Your task to perform on an android device: Open internet settings Image 0: 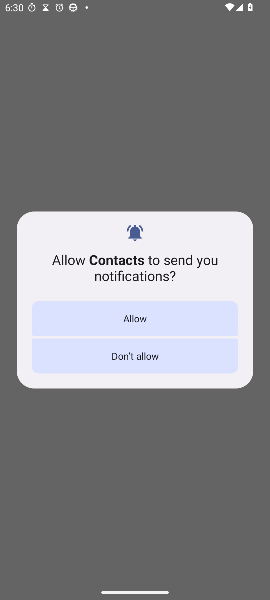
Step 0: press home button
Your task to perform on an android device: Open internet settings Image 1: 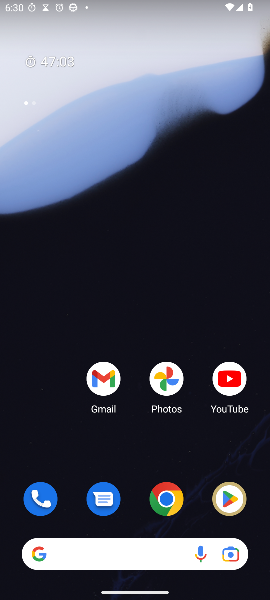
Step 1: drag from (148, 519) to (152, 0)
Your task to perform on an android device: Open internet settings Image 2: 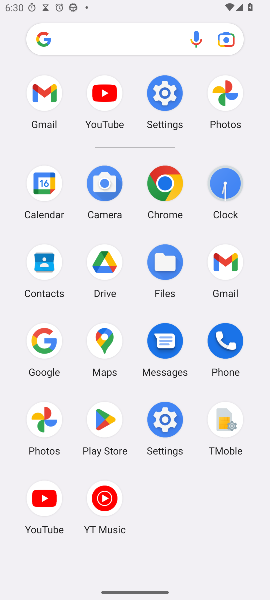
Step 2: click (159, 102)
Your task to perform on an android device: Open internet settings Image 3: 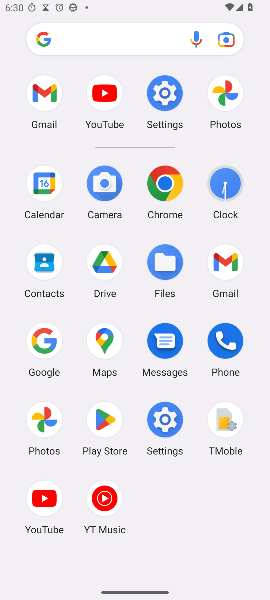
Step 3: click (155, 100)
Your task to perform on an android device: Open internet settings Image 4: 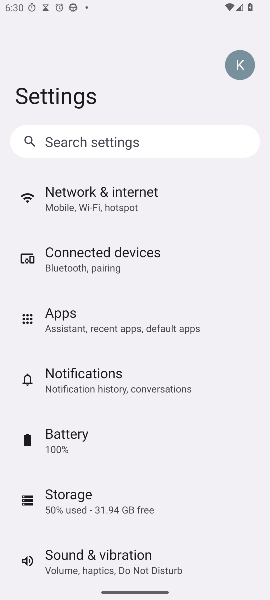
Step 4: click (123, 200)
Your task to perform on an android device: Open internet settings Image 5: 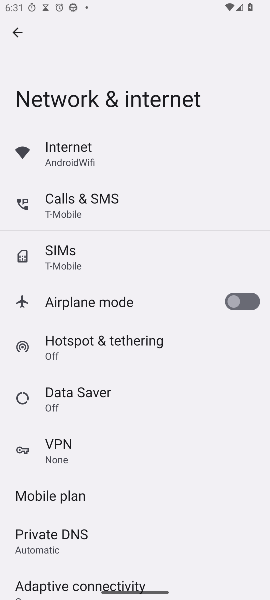
Step 5: click (44, 147)
Your task to perform on an android device: Open internet settings Image 6: 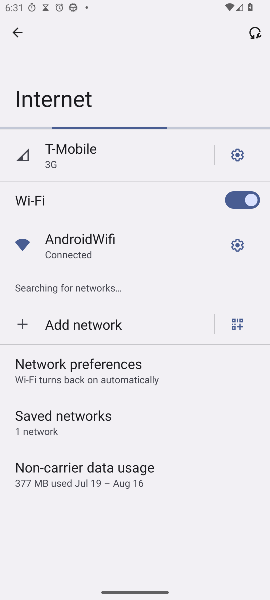
Step 6: task complete